Your task to perform on an android device: search for starred emails in the gmail app Image 0: 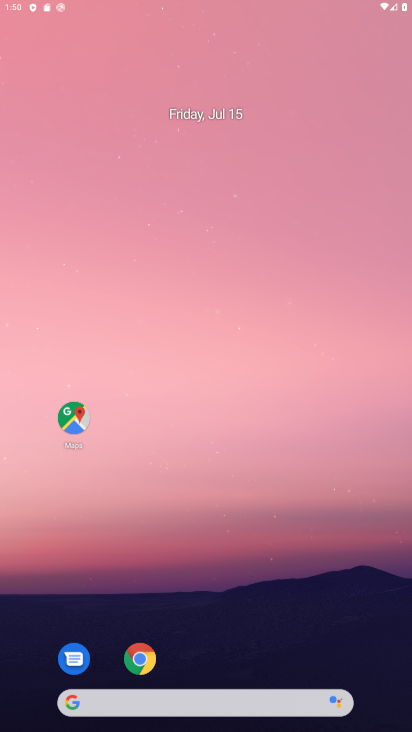
Step 0: click (169, 340)
Your task to perform on an android device: search for starred emails in the gmail app Image 1: 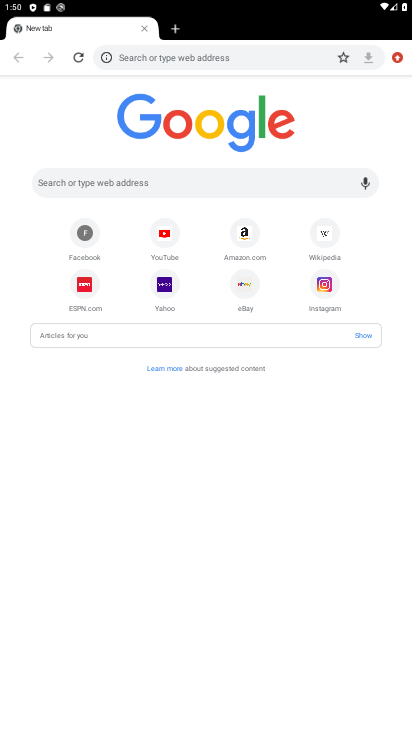
Step 1: press home button
Your task to perform on an android device: search for starred emails in the gmail app Image 2: 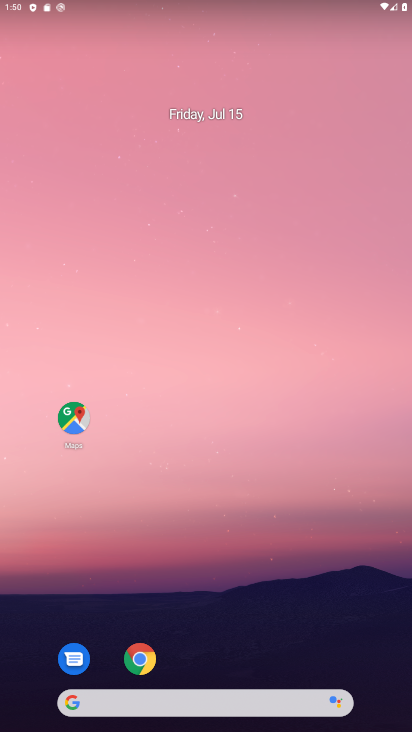
Step 2: drag from (138, 574) to (138, 378)
Your task to perform on an android device: search for starred emails in the gmail app Image 3: 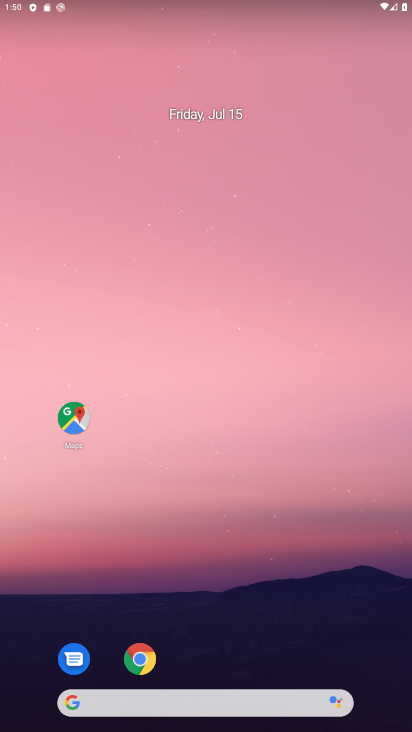
Step 3: drag from (271, 689) to (235, 218)
Your task to perform on an android device: search for starred emails in the gmail app Image 4: 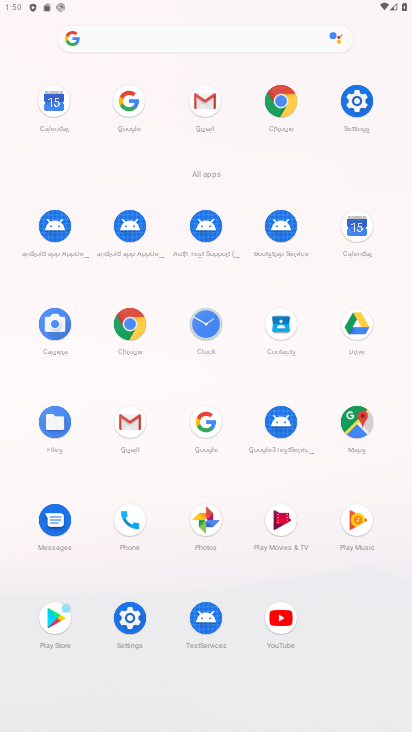
Step 4: click (133, 417)
Your task to perform on an android device: search for starred emails in the gmail app Image 5: 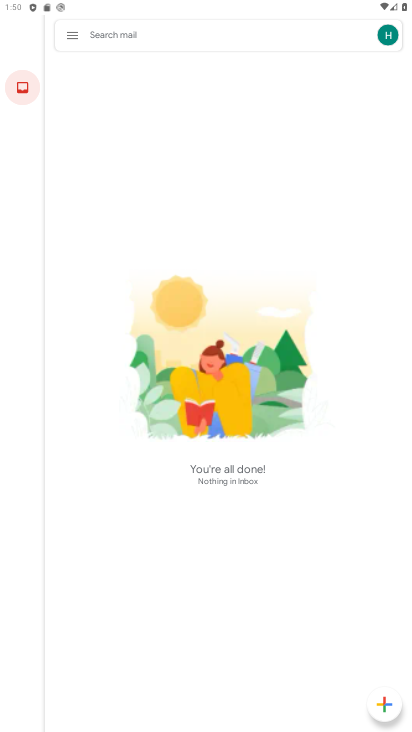
Step 5: click (72, 36)
Your task to perform on an android device: search for starred emails in the gmail app Image 6: 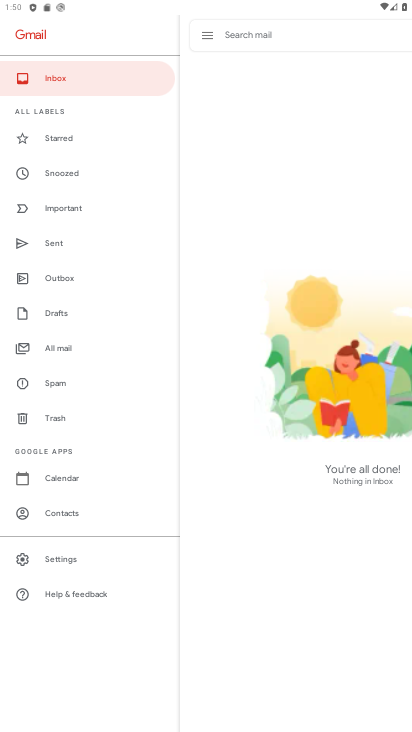
Step 6: click (55, 143)
Your task to perform on an android device: search for starred emails in the gmail app Image 7: 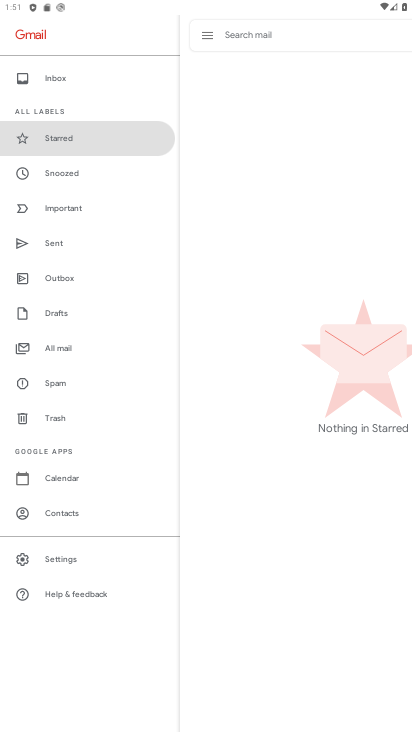
Step 7: task complete